Your task to perform on an android device: uninstall "Gmail" Image 0: 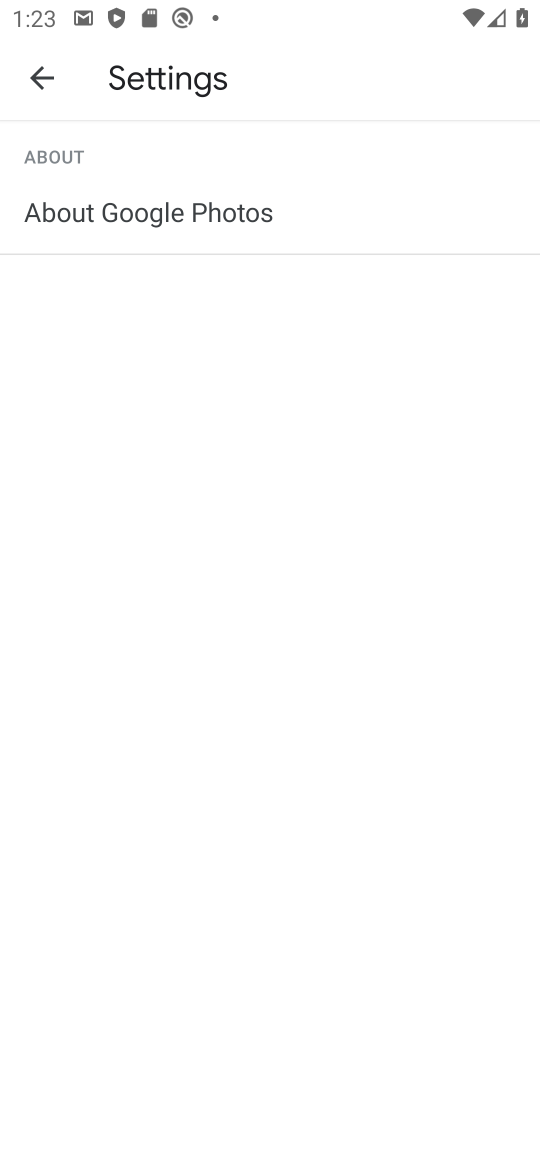
Step 0: press home button
Your task to perform on an android device: uninstall "Gmail" Image 1: 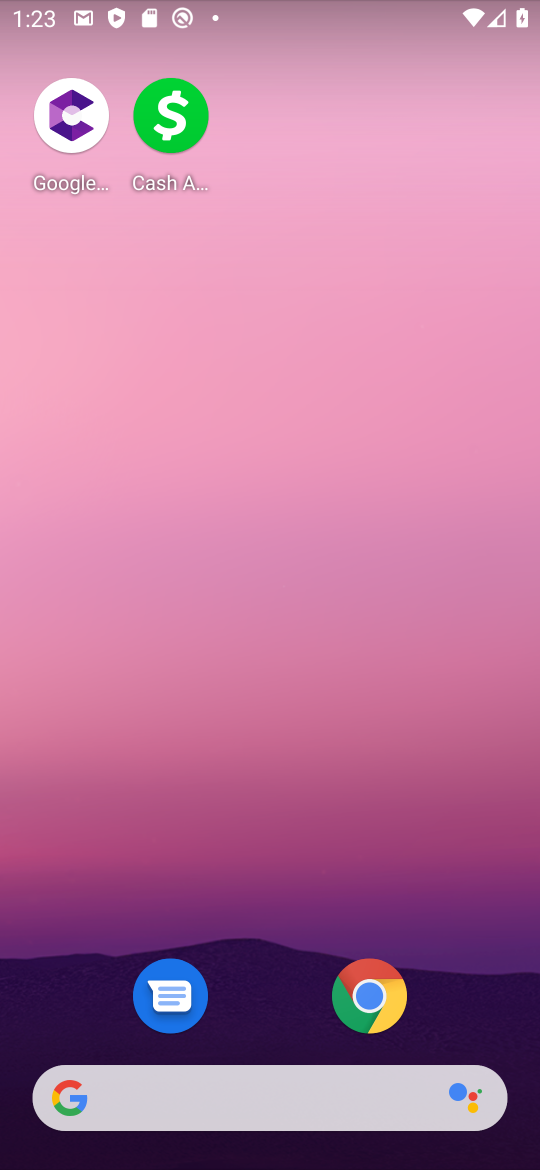
Step 1: drag from (220, 1075) to (243, 202)
Your task to perform on an android device: uninstall "Gmail" Image 2: 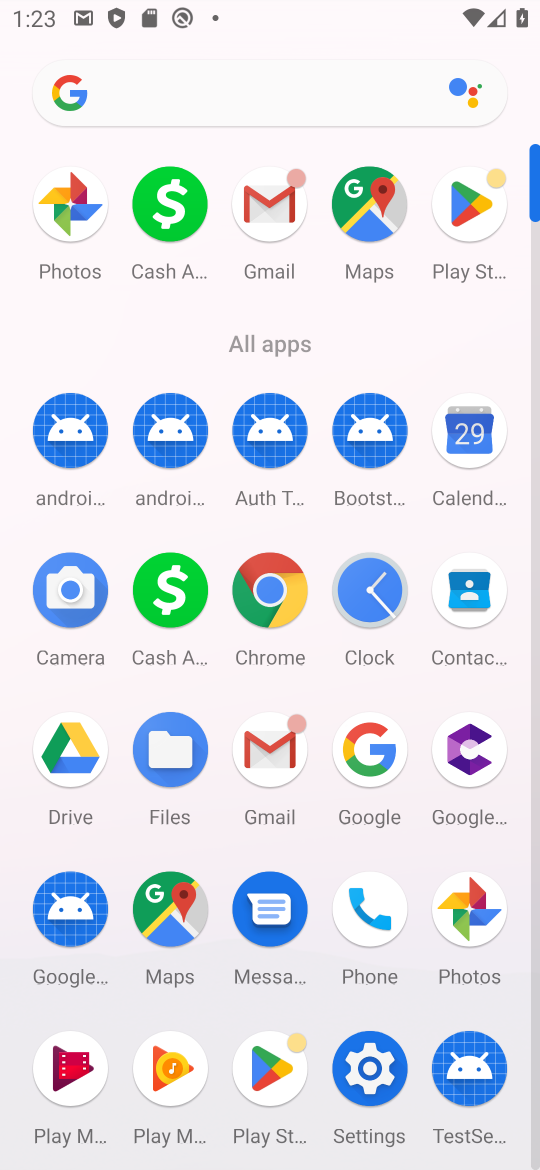
Step 2: click (270, 198)
Your task to perform on an android device: uninstall "Gmail" Image 3: 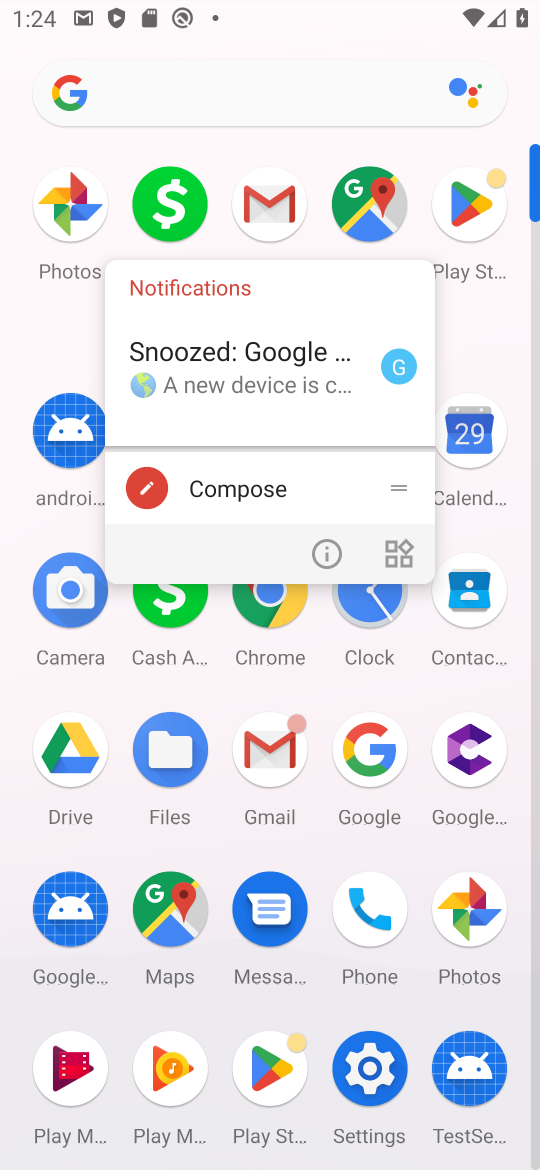
Step 3: click (287, 210)
Your task to perform on an android device: uninstall "Gmail" Image 4: 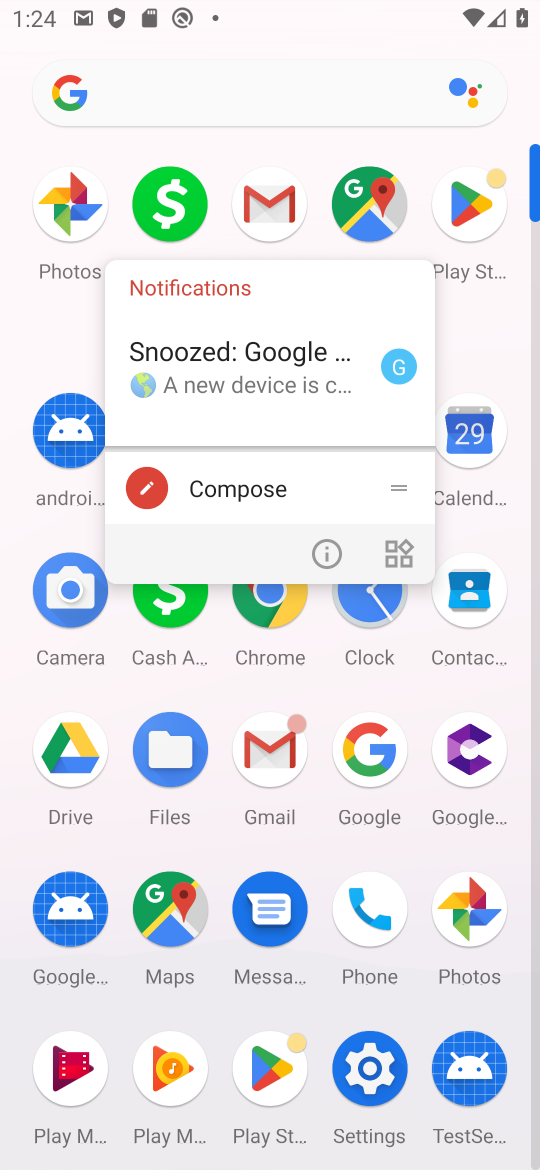
Step 4: click (270, 198)
Your task to perform on an android device: uninstall "Gmail" Image 5: 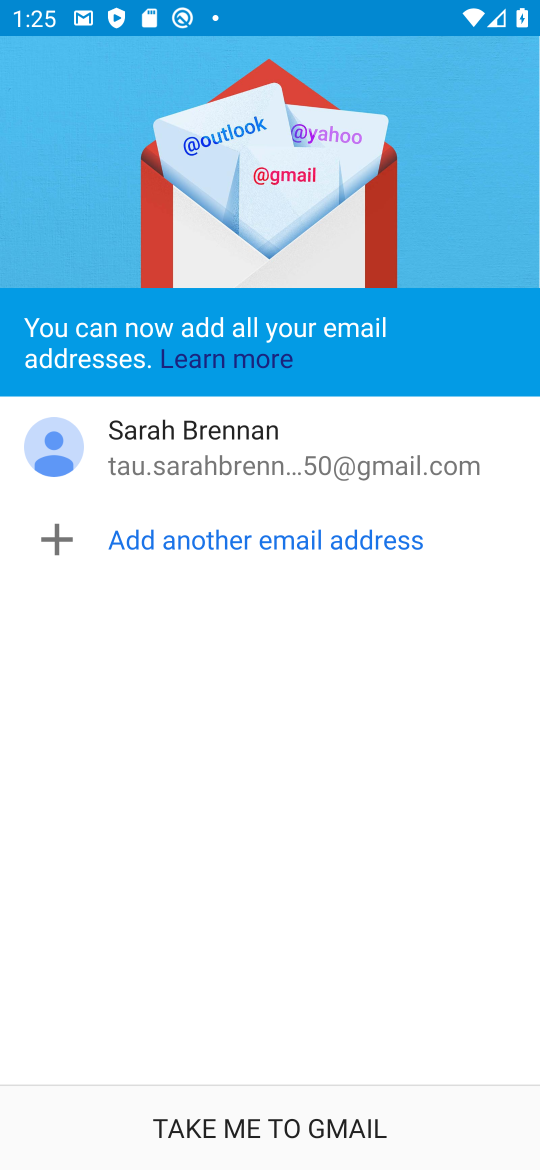
Step 5: task complete